Your task to perform on an android device: Open Youtube and go to "Your channel" Image 0: 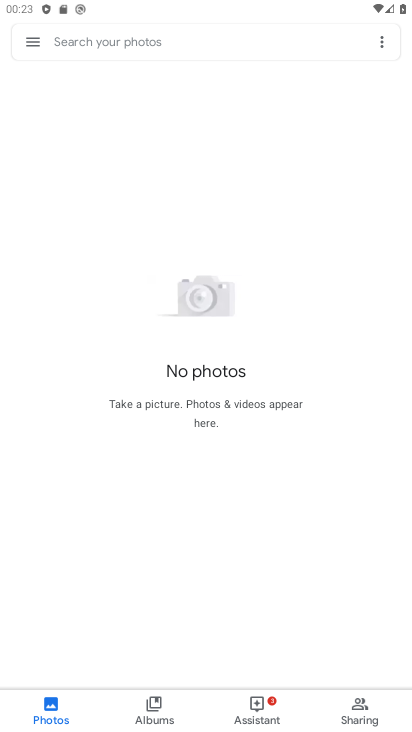
Step 0: press home button
Your task to perform on an android device: Open Youtube and go to "Your channel" Image 1: 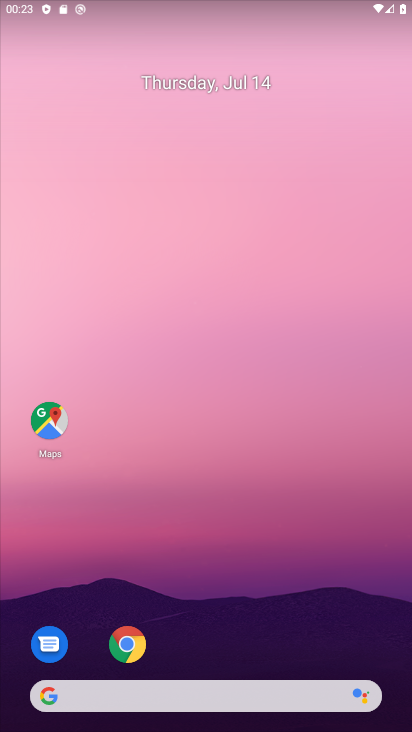
Step 1: drag from (265, 709) to (239, 197)
Your task to perform on an android device: Open Youtube and go to "Your channel" Image 2: 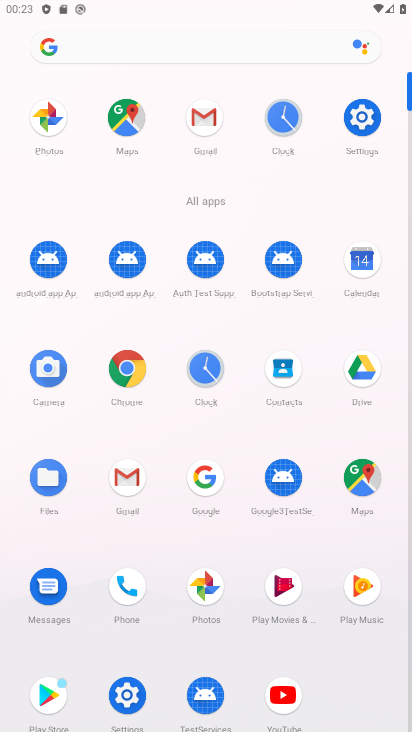
Step 2: click (277, 683)
Your task to perform on an android device: Open Youtube and go to "Your channel" Image 3: 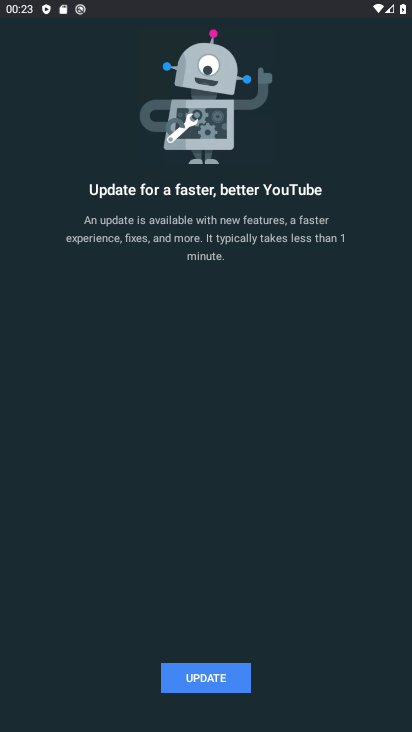
Step 3: click (186, 693)
Your task to perform on an android device: Open Youtube and go to "Your channel" Image 4: 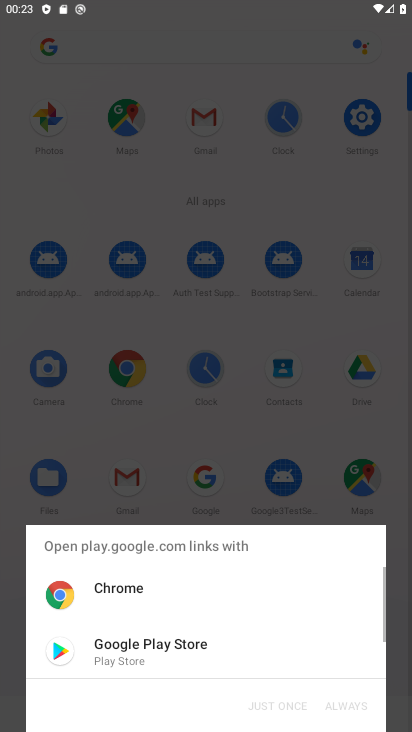
Step 4: click (170, 638)
Your task to perform on an android device: Open Youtube and go to "Your channel" Image 5: 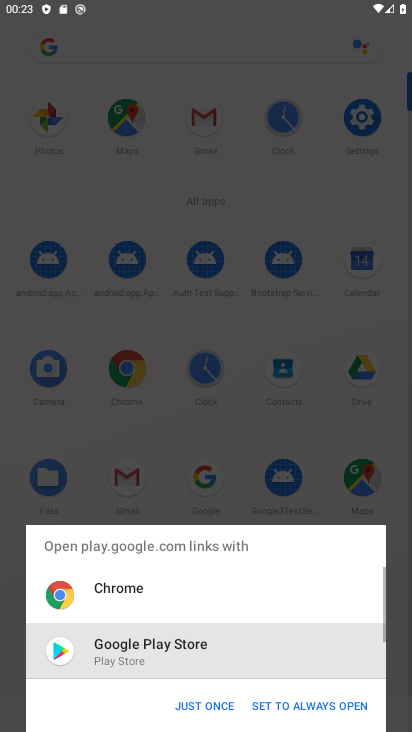
Step 5: click (212, 703)
Your task to perform on an android device: Open Youtube and go to "Your channel" Image 6: 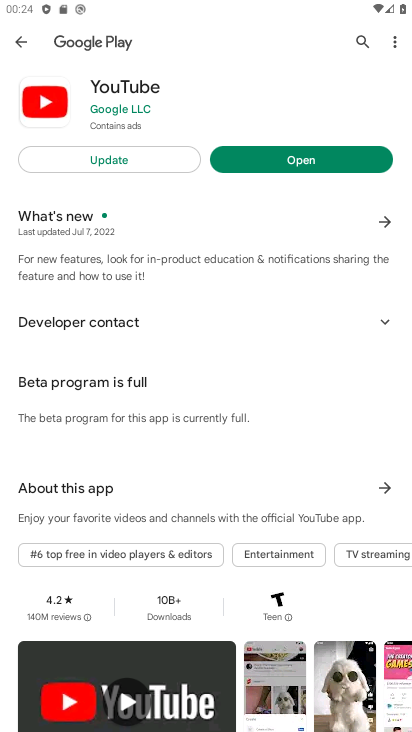
Step 6: click (266, 161)
Your task to perform on an android device: Open Youtube and go to "Your channel" Image 7: 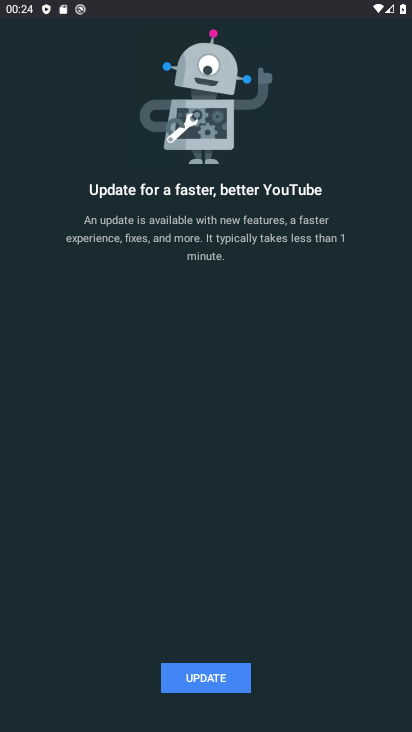
Step 7: click (208, 669)
Your task to perform on an android device: Open Youtube and go to "Your channel" Image 8: 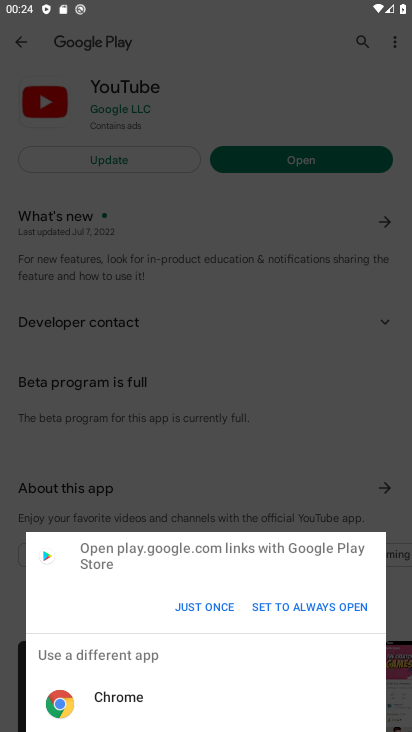
Step 8: click (216, 613)
Your task to perform on an android device: Open Youtube and go to "Your channel" Image 9: 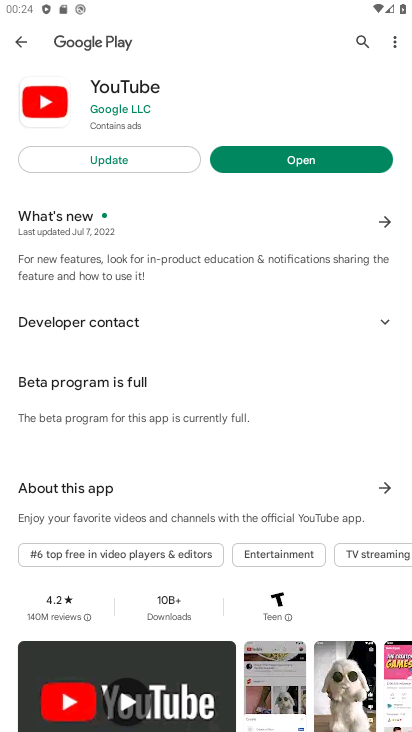
Step 9: click (74, 160)
Your task to perform on an android device: Open Youtube and go to "Your channel" Image 10: 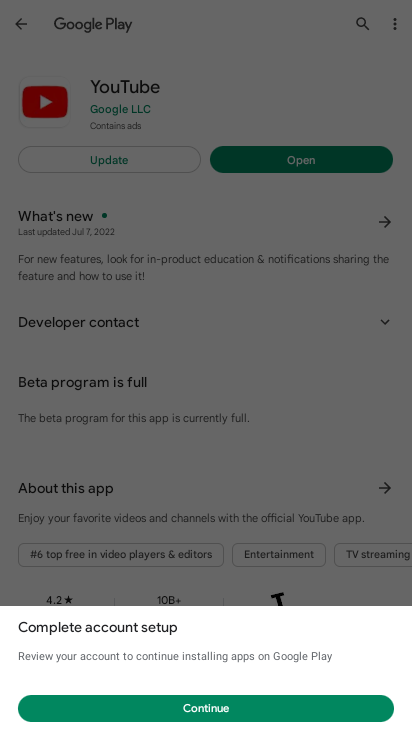
Step 10: click (247, 711)
Your task to perform on an android device: Open Youtube and go to "Your channel" Image 11: 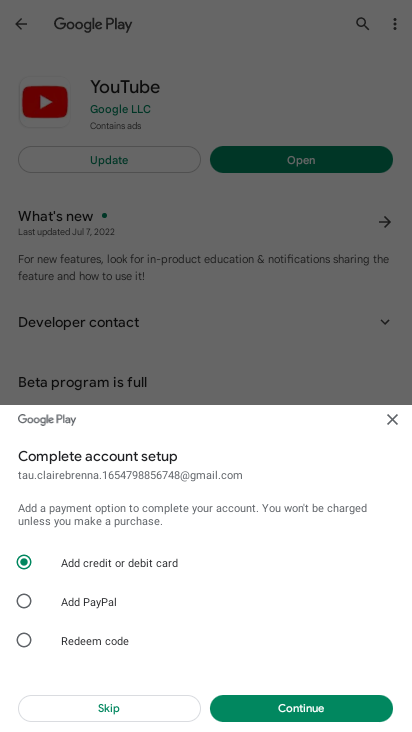
Step 11: click (125, 705)
Your task to perform on an android device: Open Youtube and go to "Your channel" Image 12: 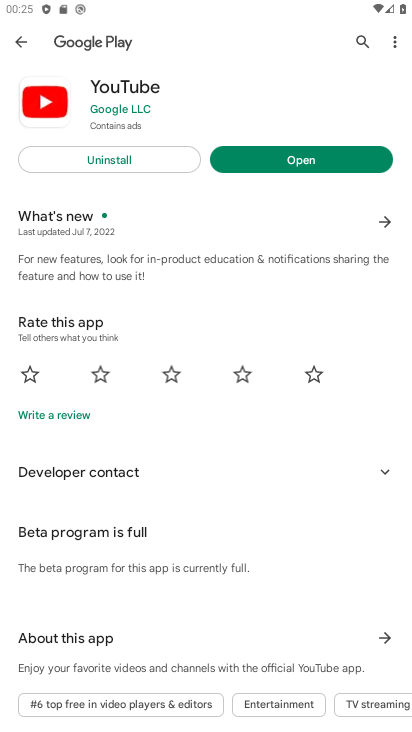
Step 12: click (321, 164)
Your task to perform on an android device: Open Youtube and go to "Your channel" Image 13: 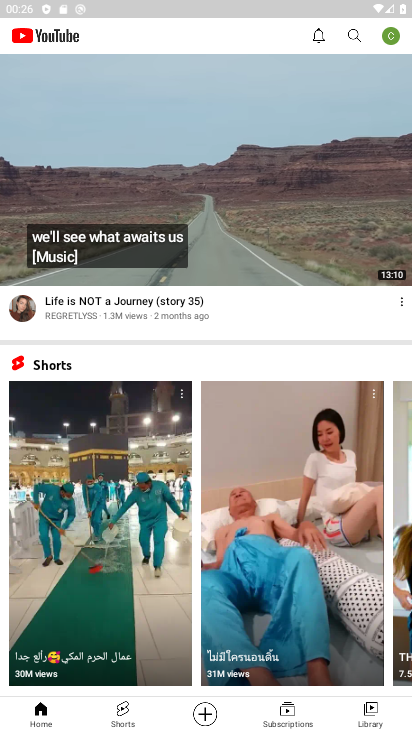
Step 13: click (385, 30)
Your task to perform on an android device: Open Youtube and go to "Your channel" Image 14: 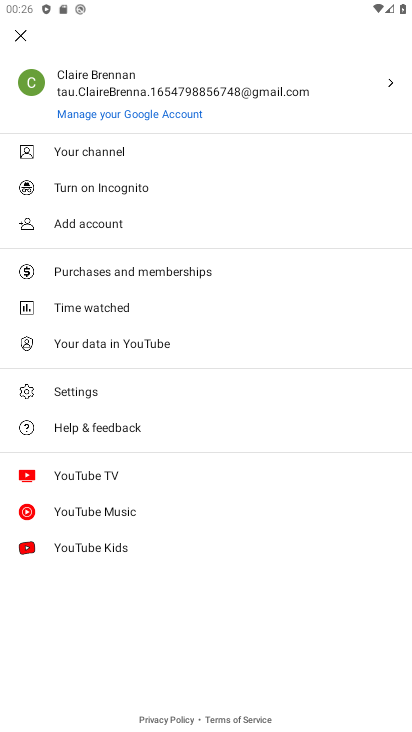
Step 14: click (90, 161)
Your task to perform on an android device: Open Youtube and go to "Your channel" Image 15: 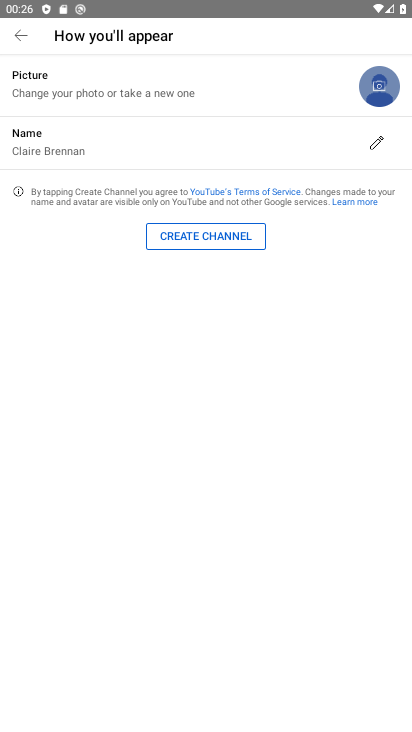
Step 15: task complete